Your task to perform on an android device: Go to sound settings Image 0: 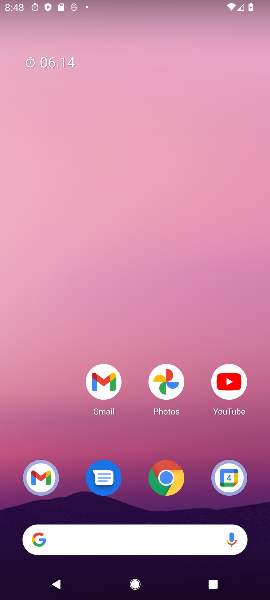
Step 0: press home button
Your task to perform on an android device: Go to sound settings Image 1: 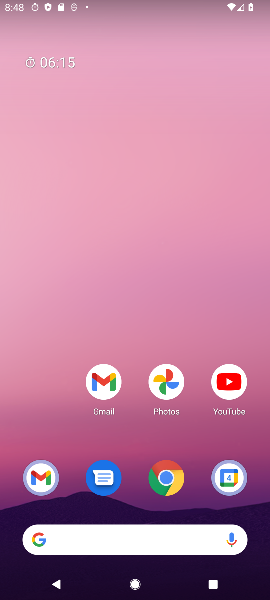
Step 1: drag from (107, 425) to (95, 40)
Your task to perform on an android device: Go to sound settings Image 2: 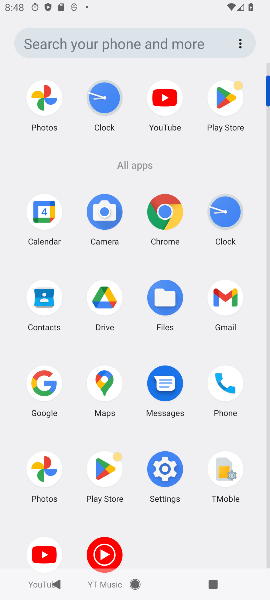
Step 2: click (178, 483)
Your task to perform on an android device: Go to sound settings Image 3: 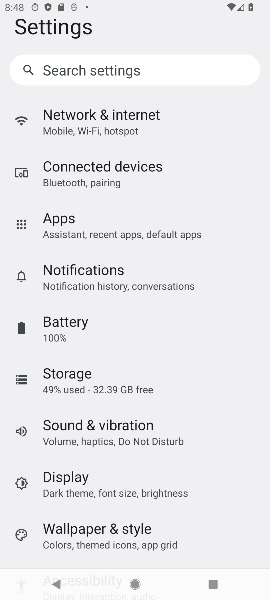
Step 3: click (51, 444)
Your task to perform on an android device: Go to sound settings Image 4: 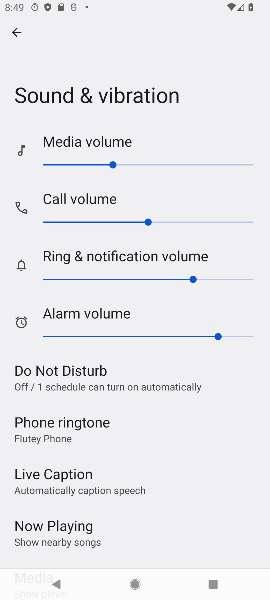
Step 4: task complete